Your task to perform on an android device: Go to calendar. Show me events next week Image 0: 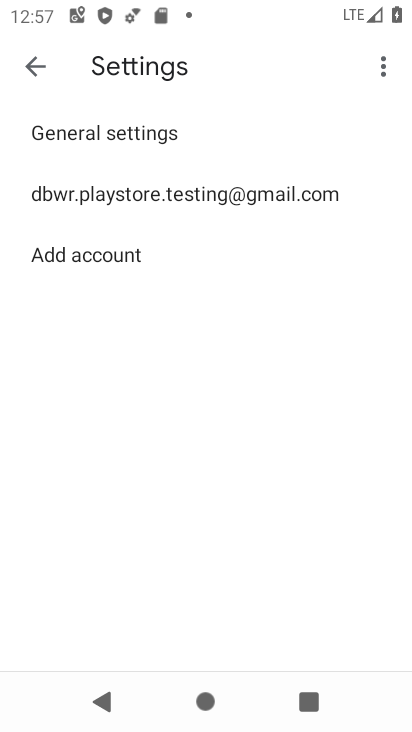
Step 0: press home button
Your task to perform on an android device: Go to calendar. Show me events next week Image 1: 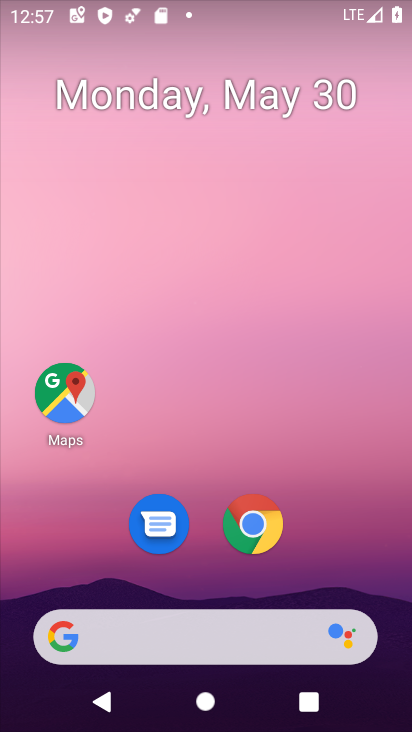
Step 1: drag from (351, 521) to (284, 4)
Your task to perform on an android device: Go to calendar. Show me events next week Image 2: 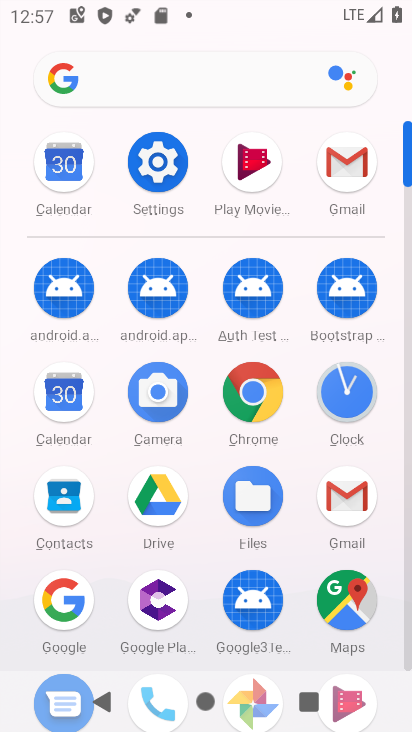
Step 2: click (73, 165)
Your task to perform on an android device: Go to calendar. Show me events next week Image 3: 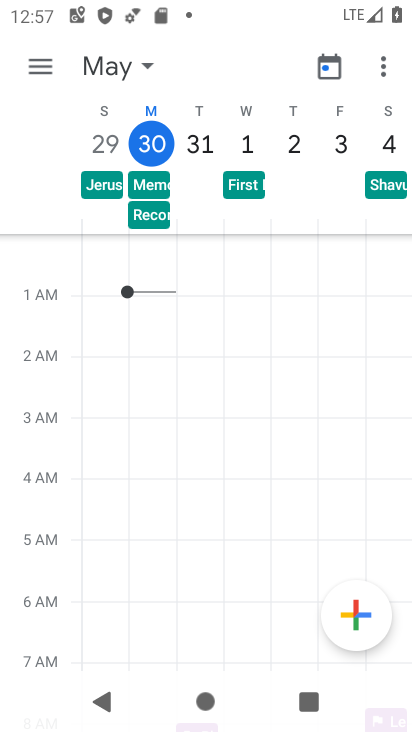
Step 3: task complete